Your task to perform on an android device: Turn off the flashlight Image 0: 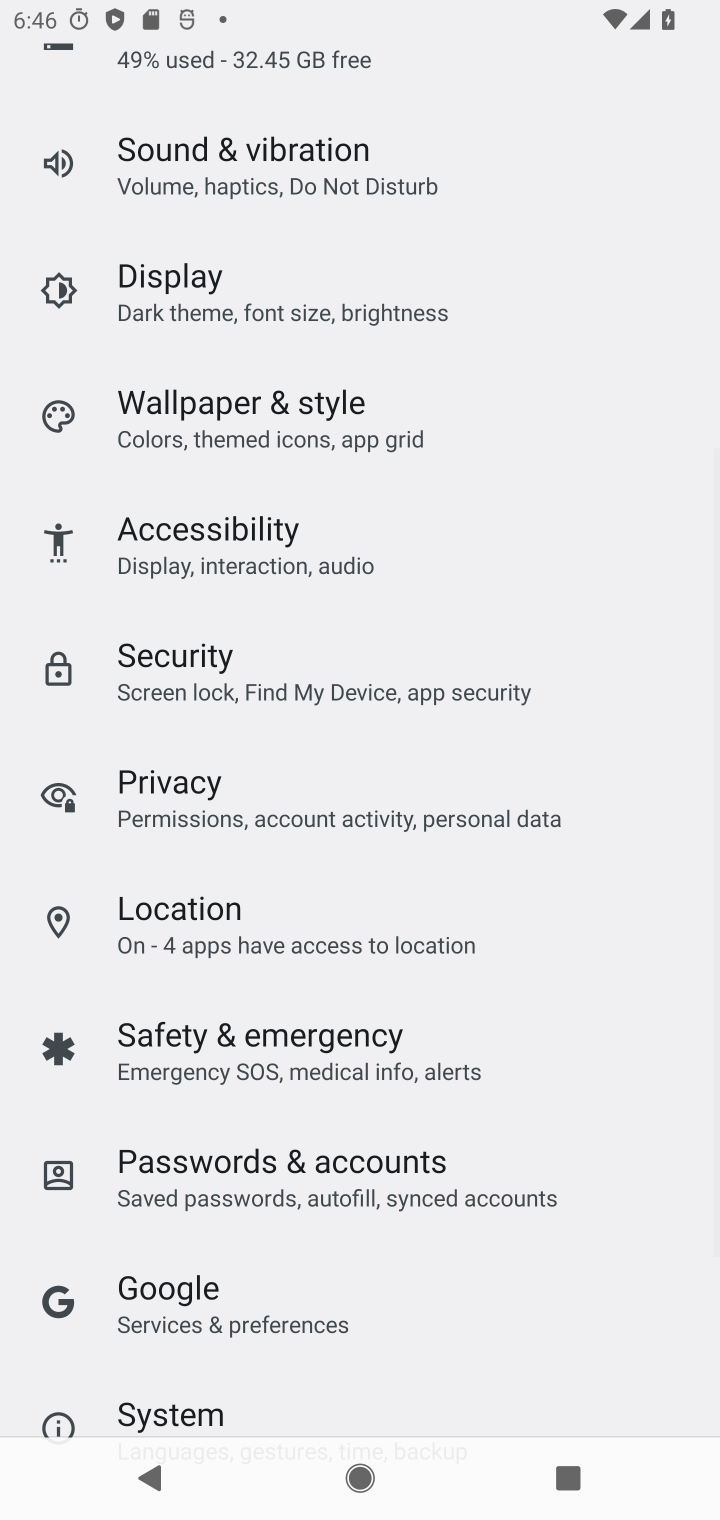
Step 0: press home button
Your task to perform on an android device: Turn off the flashlight Image 1: 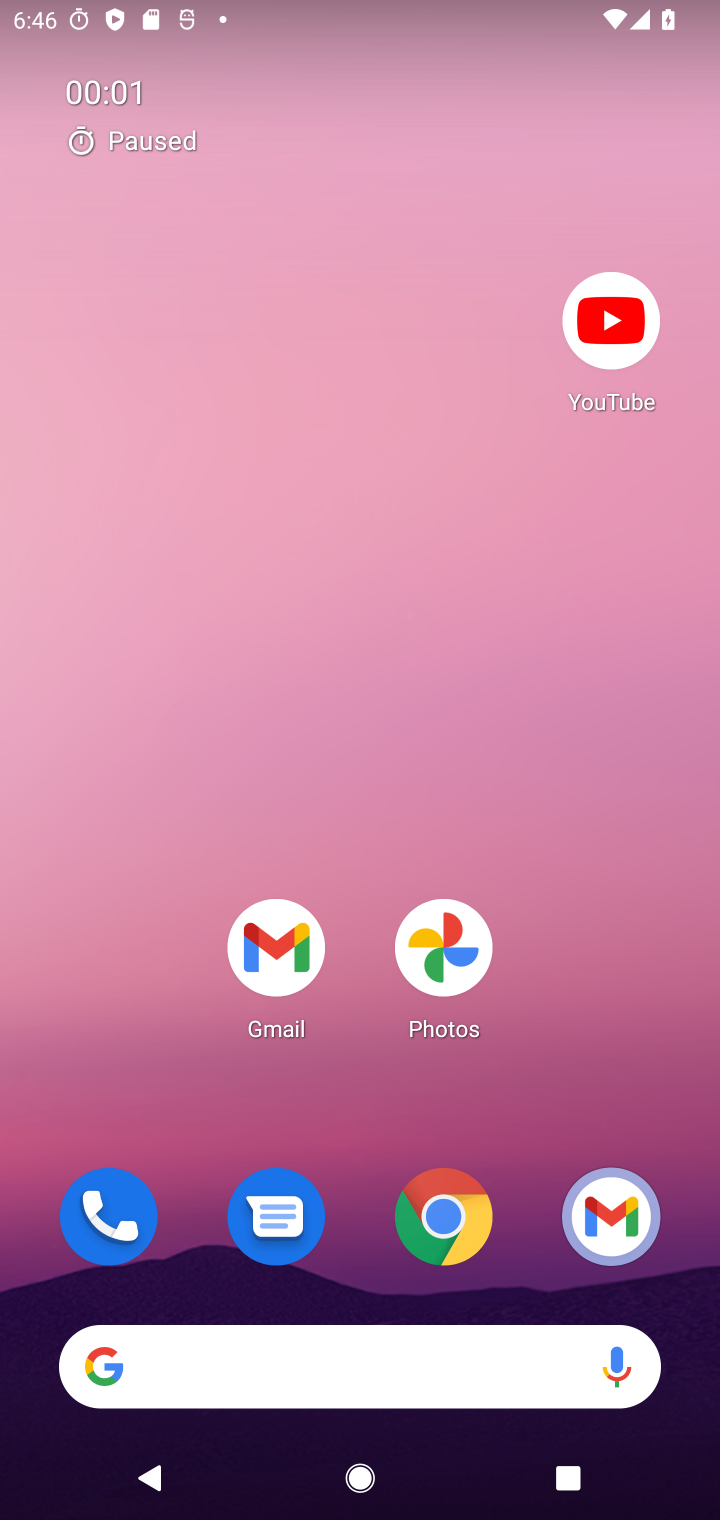
Step 1: drag from (592, 924) to (572, 243)
Your task to perform on an android device: Turn off the flashlight Image 2: 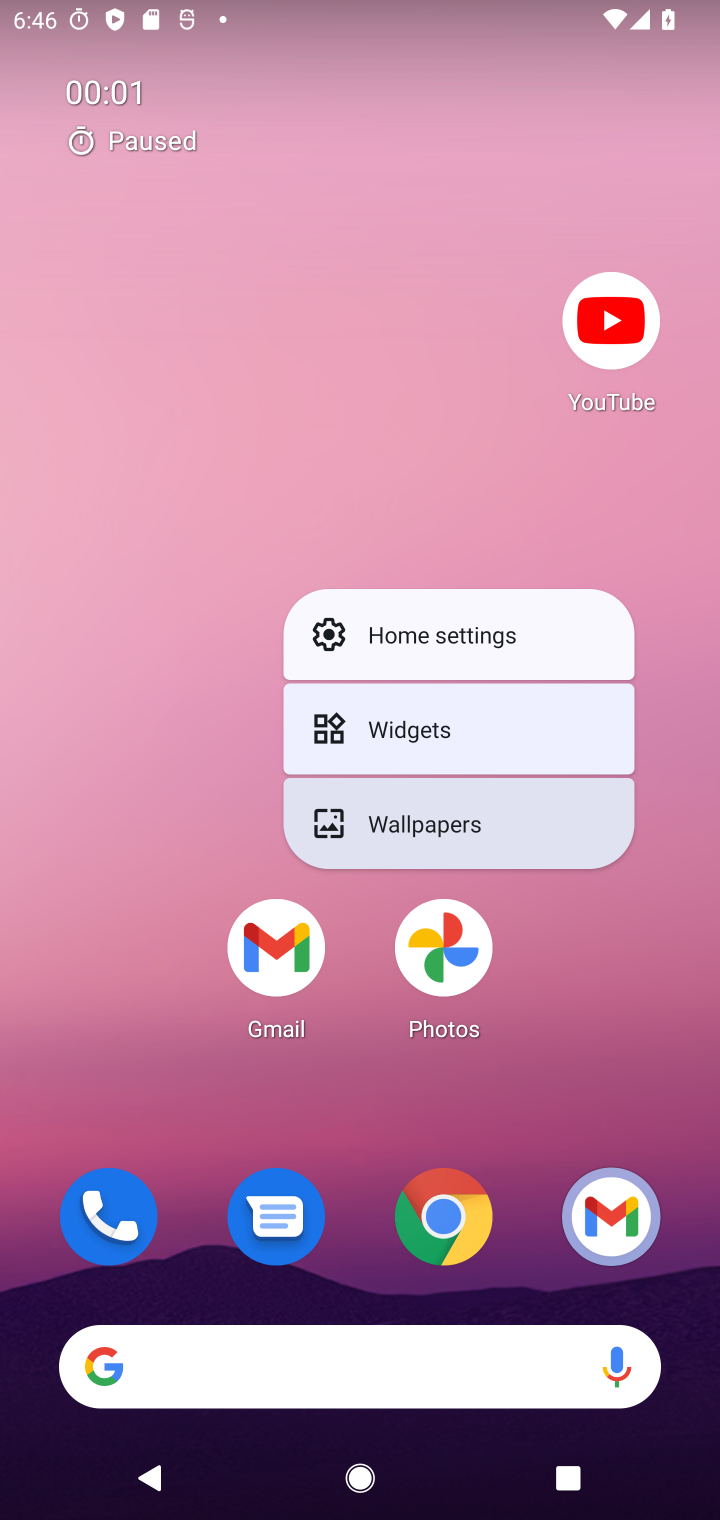
Step 2: click (332, 384)
Your task to perform on an android device: Turn off the flashlight Image 3: 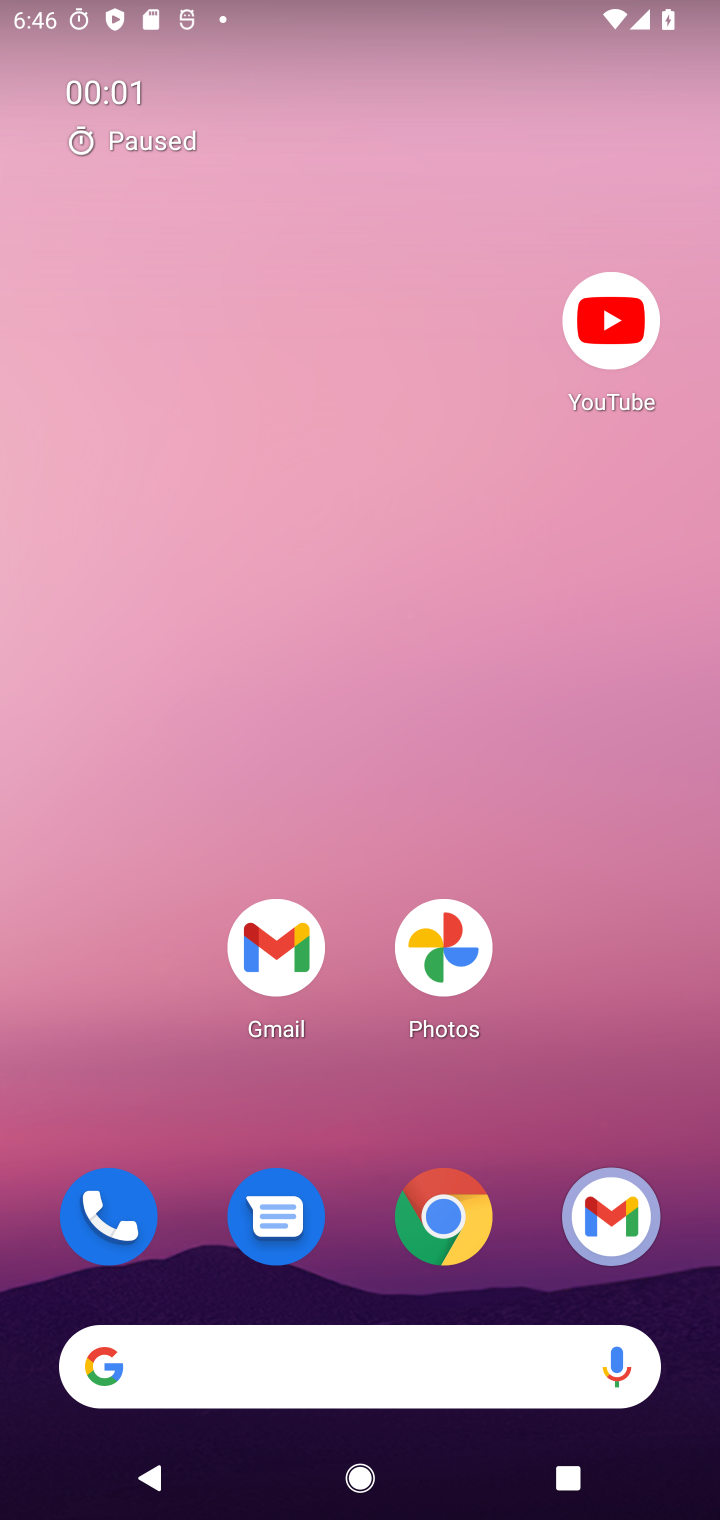
Step 3: drag from (404, 911) to (423, 209)
Your task to perform on an android device: Turn off the flashlight Image 4: 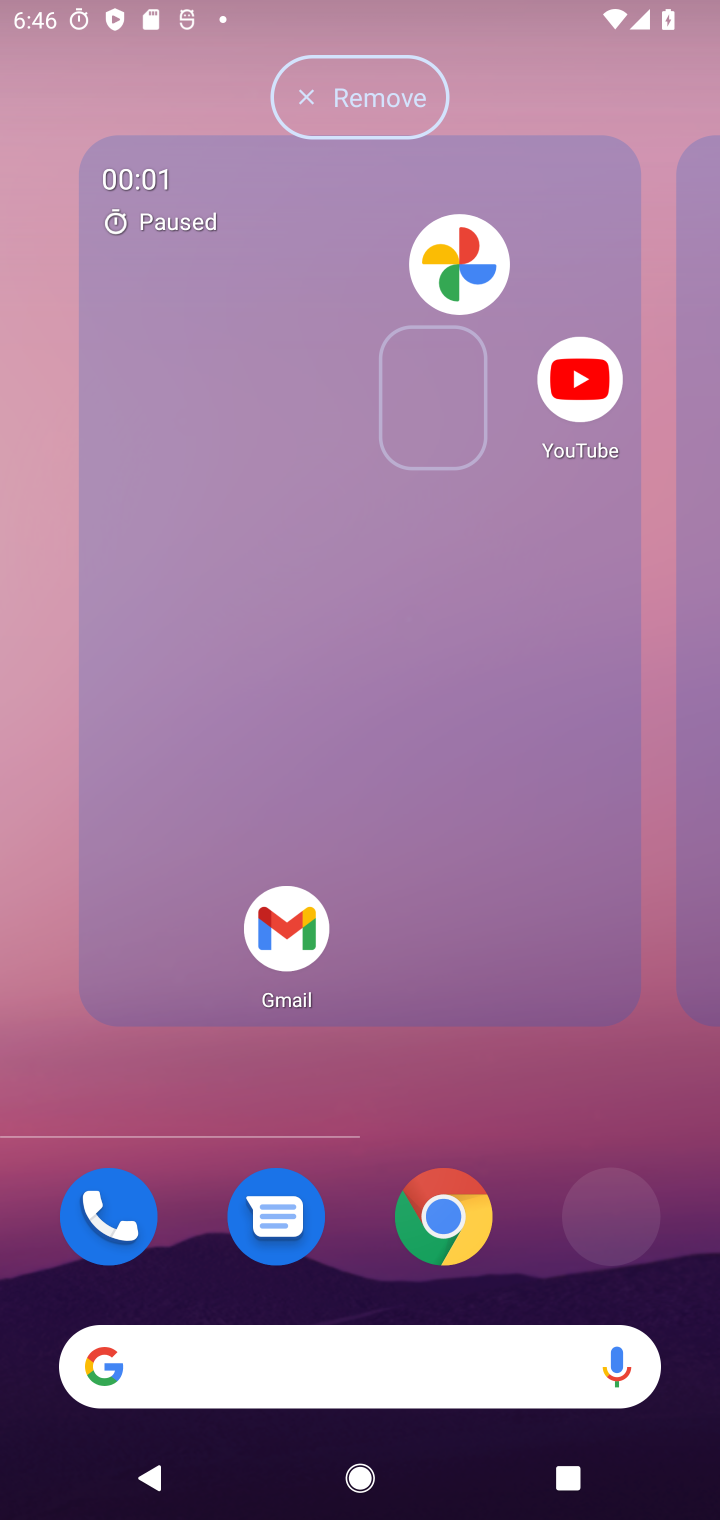
Step 4: click (423, 209)
Your task to perform on an android device: Turn off the flashlight Image 5: 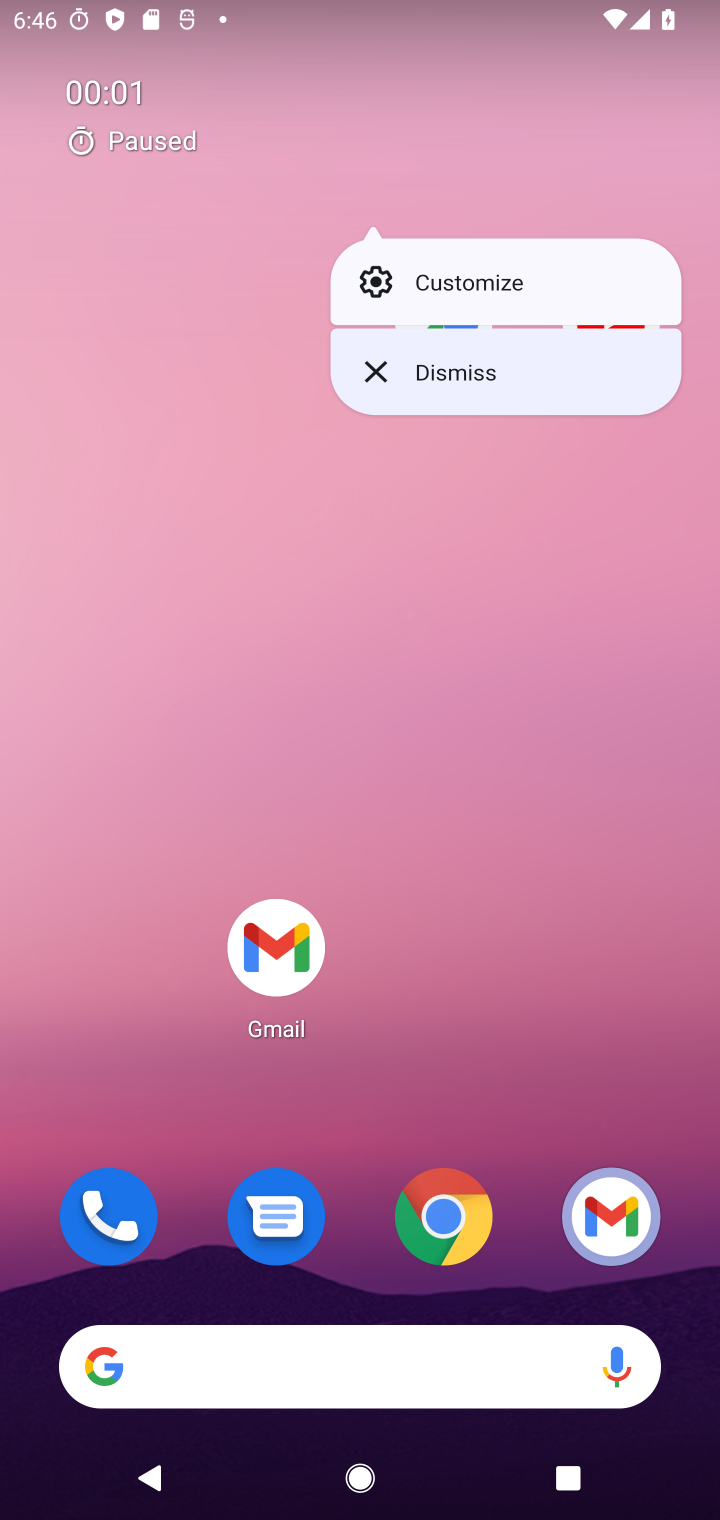
Step 5: click (254, 370)
Your task to perform on an android device: Turn off the flashlight Image 6: 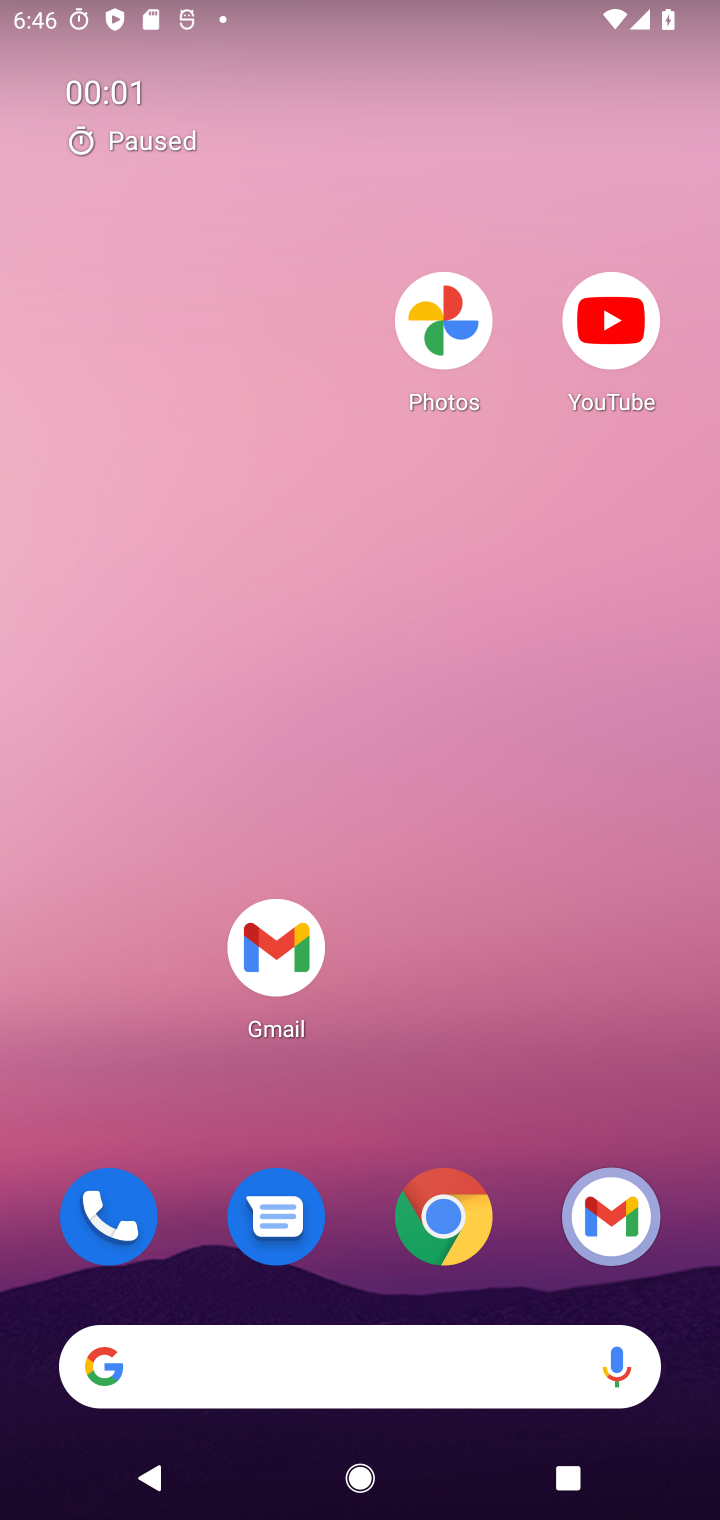
Step 6: click (443, 875)
Your task to perform on an android device: Turn off the flashlight Image 7: 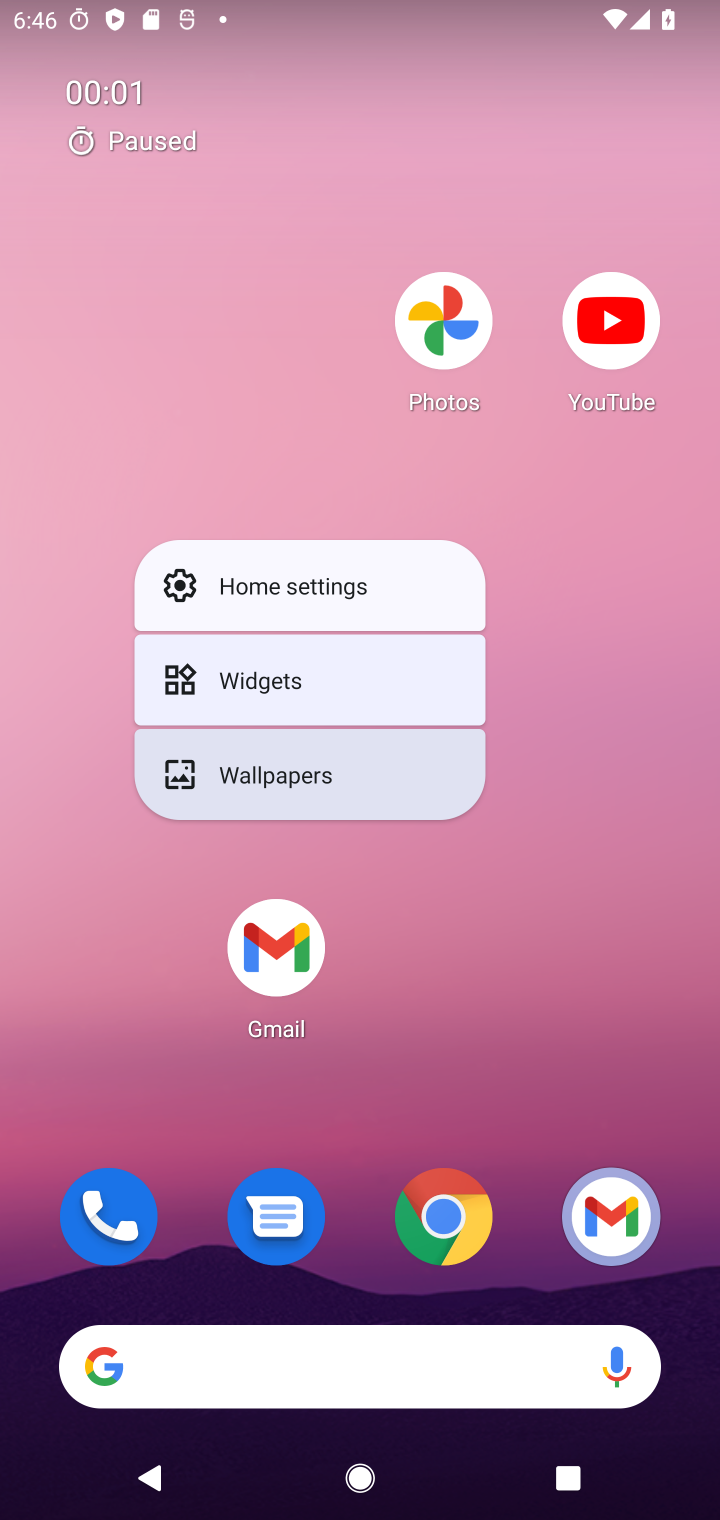
Step 7: drag from (516, 1265) to (561, 453)
Your task to perform on an android device: Turn off the flashlight Image 8: 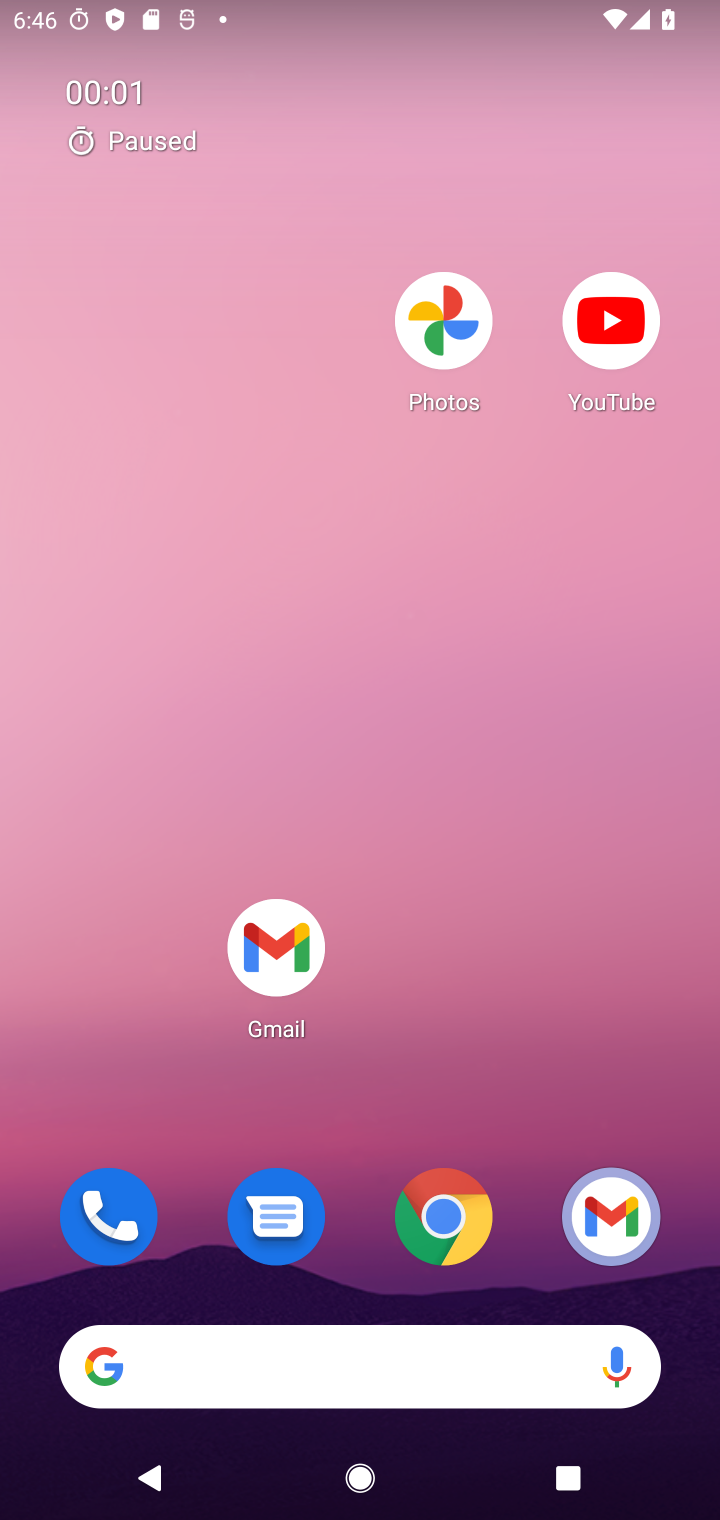
Step 8: click (382, 842)
Your task to perform on an android device: Turn off the flashlight Image 9: 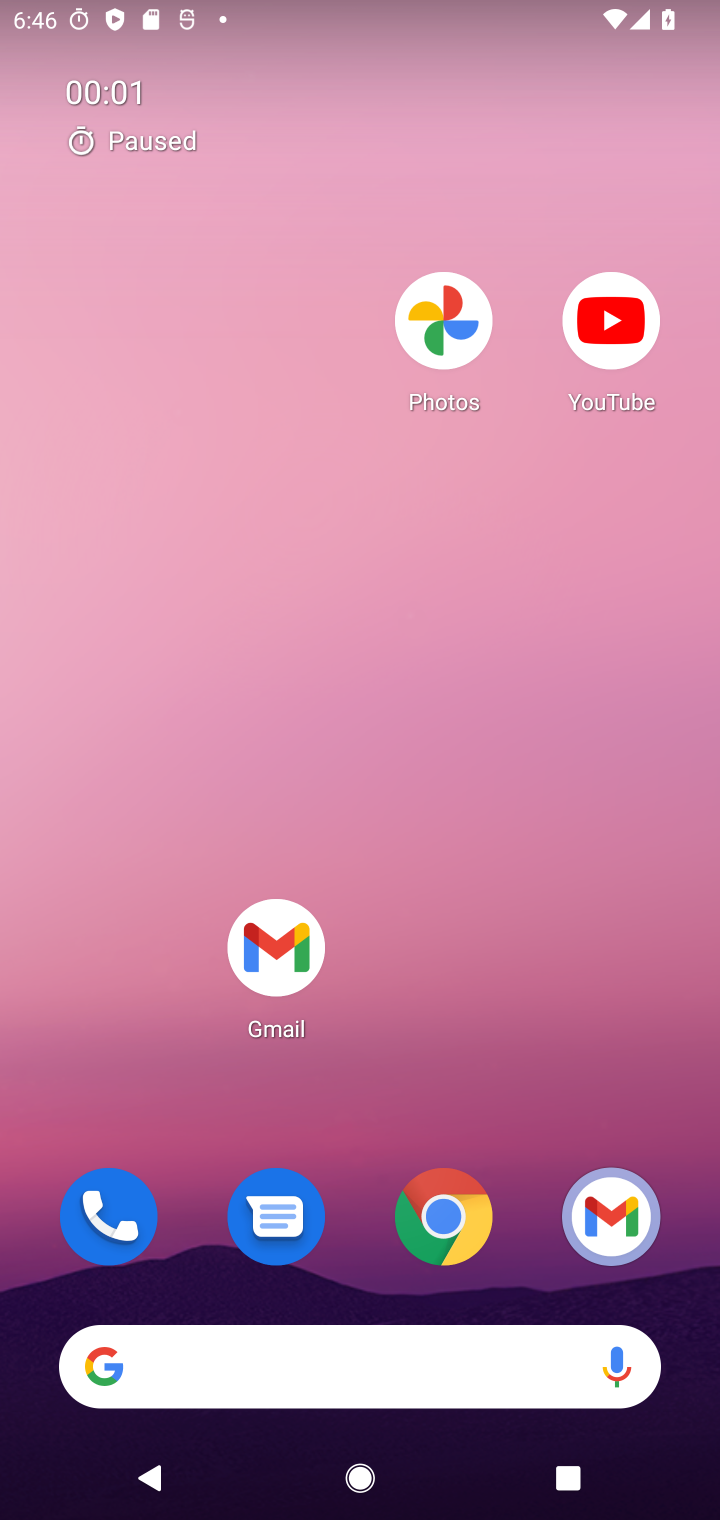
Step 9: drag from (524, 1260) to (575, 372)
Your task to perform on an android device: Turn off the flashlight Image 10: 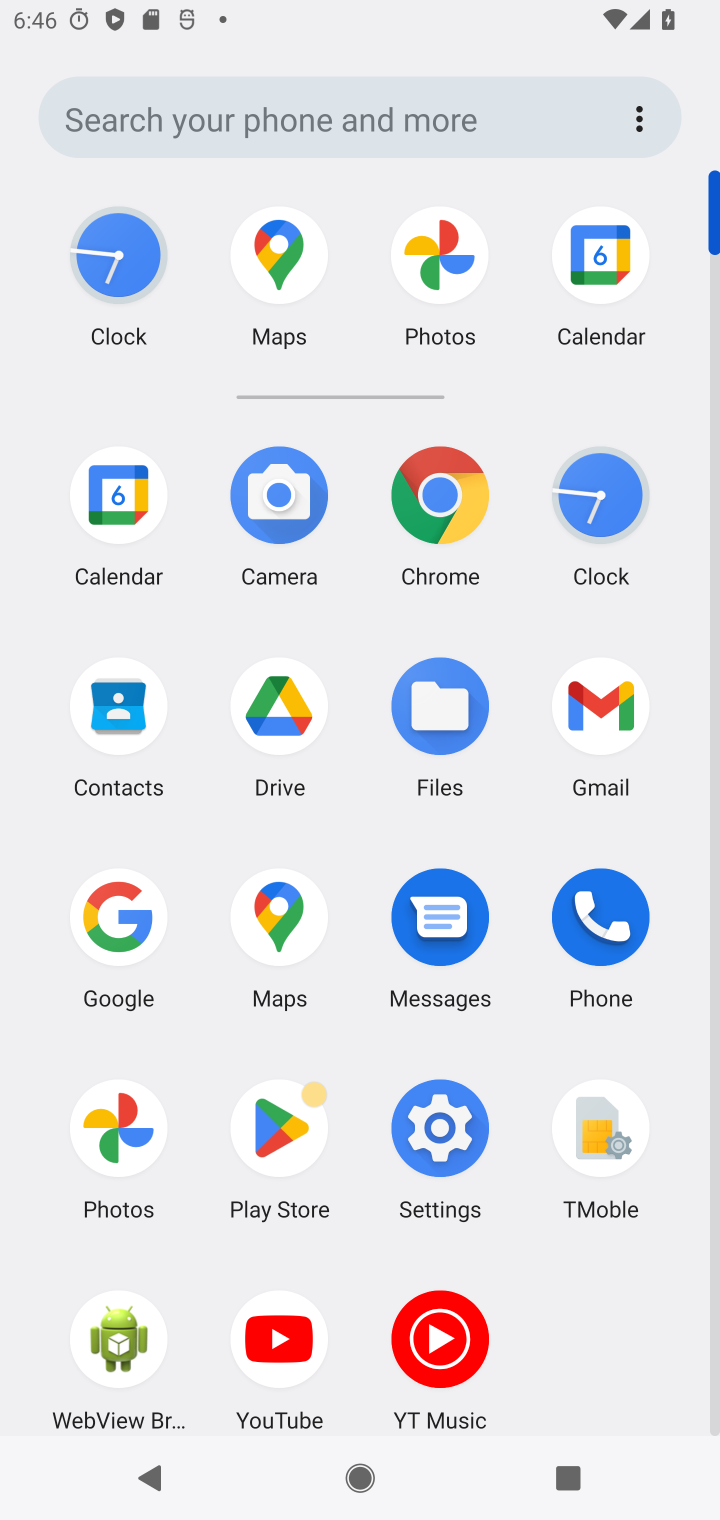
Step 10: click (430, 1127)
Your task to perform on an android device: Turn off the flashlight Image 11: 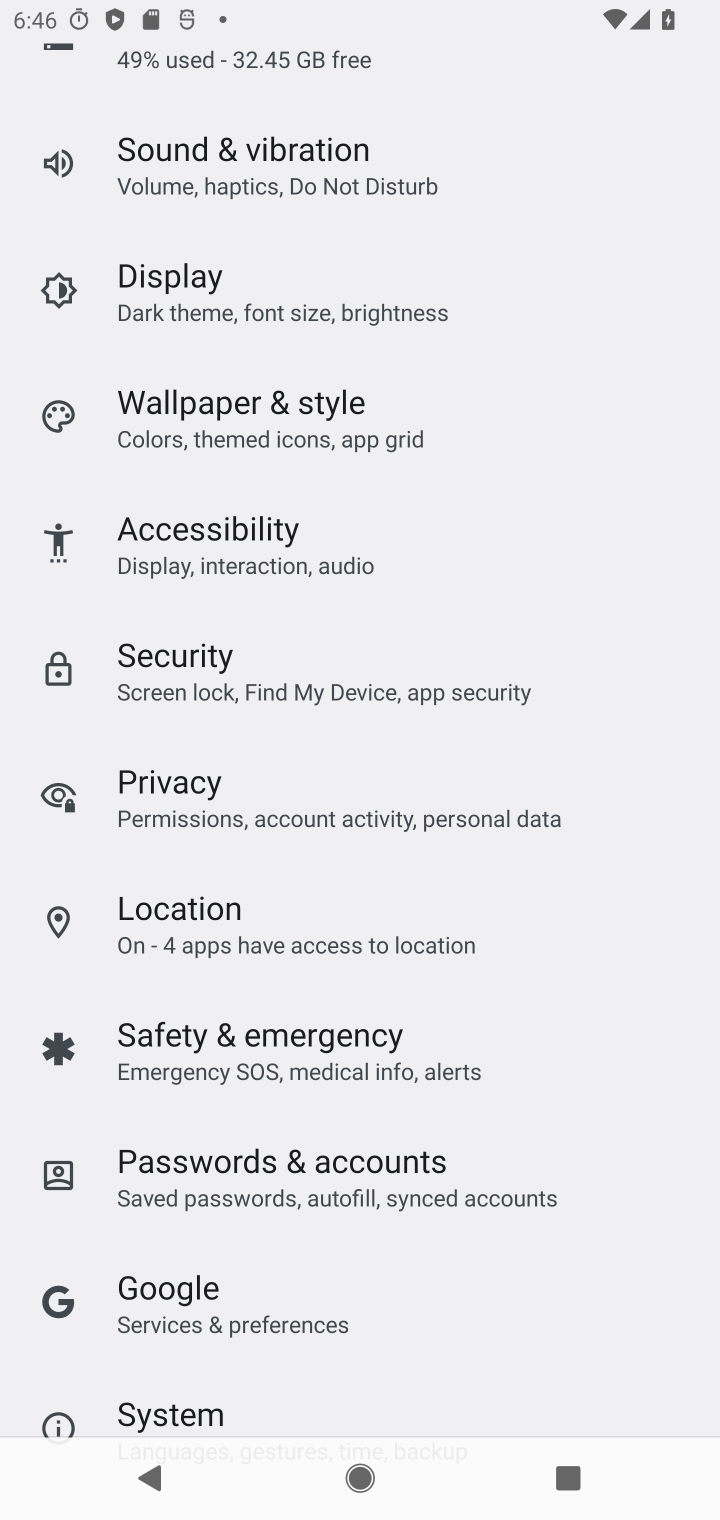
Step 11: click (195, 293)
Your task to perform on an android device: Turn off the flashlight Image 12: 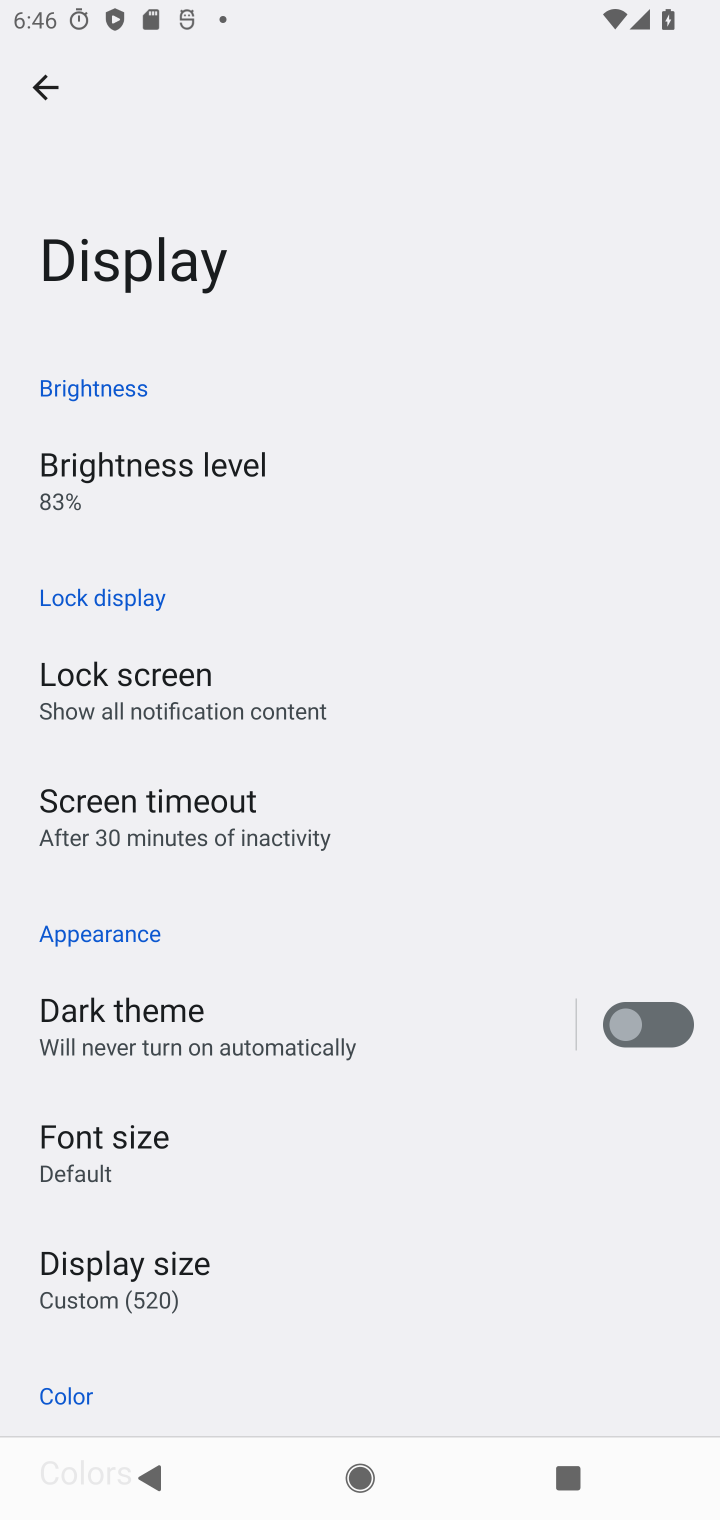
Step 12: click (98, 820)
Your task to perform on an android device: Turn off the flashlight Image 13: 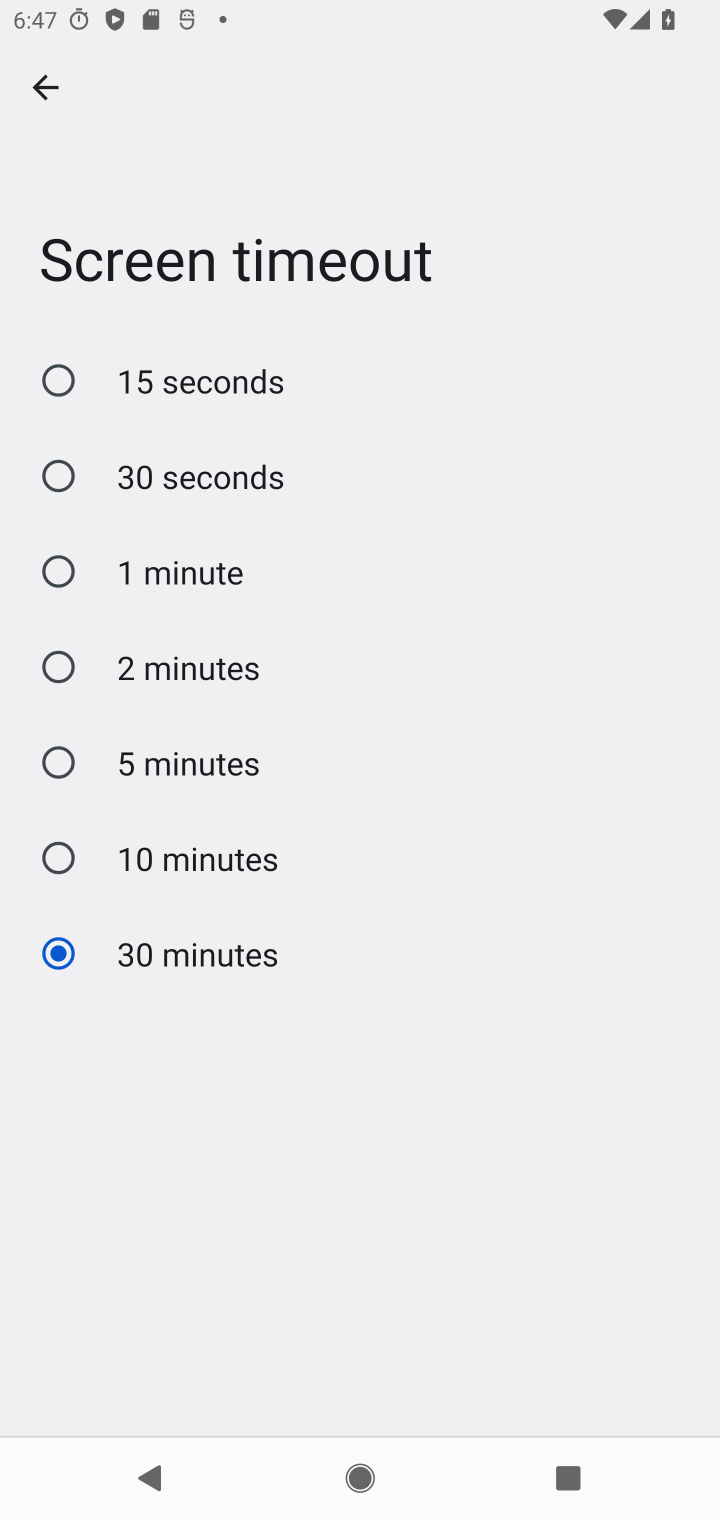
Step 13: task complete